Your task to perform on an android device: Go to Google Image 0: 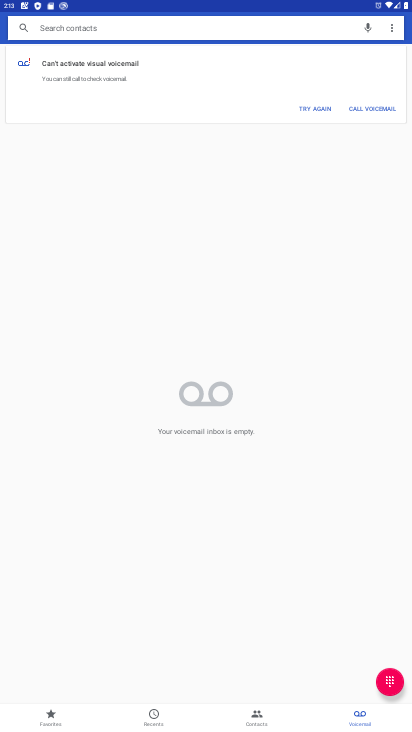
Step 0: press home button
Your task to perform on an android device: Go to Google Image 1: 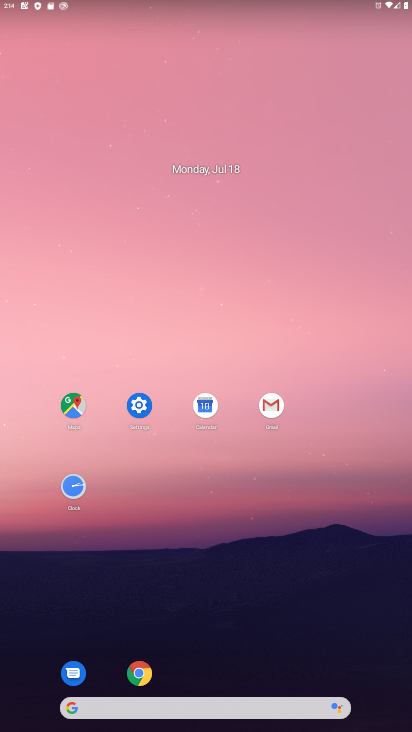
Step 1: drag from (388, 726) to (409, 77)
Your task to perform on an android device: Go to Google Image 2: 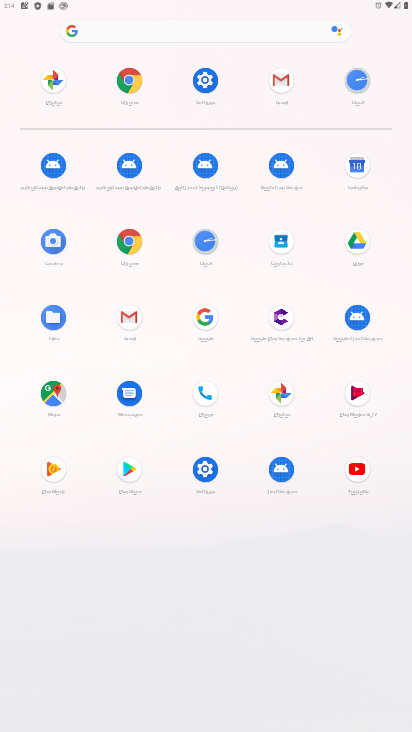
Step 2: click (210, 320)
Your task to perform on an android device: Go to Google Image 3: 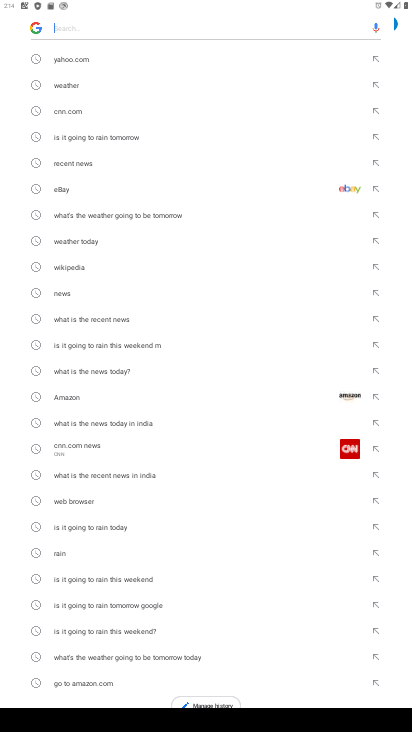
Step 3: task complete